Your task to perform on an android device: turn off priority inbox in the gmail app Image 0: 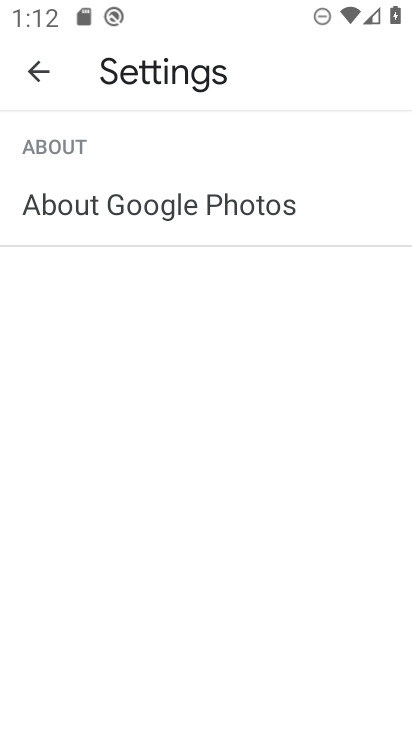
Step 0: press home button
Your task to perform on an android device: turn off priority inbox in the gmail app Image 1: 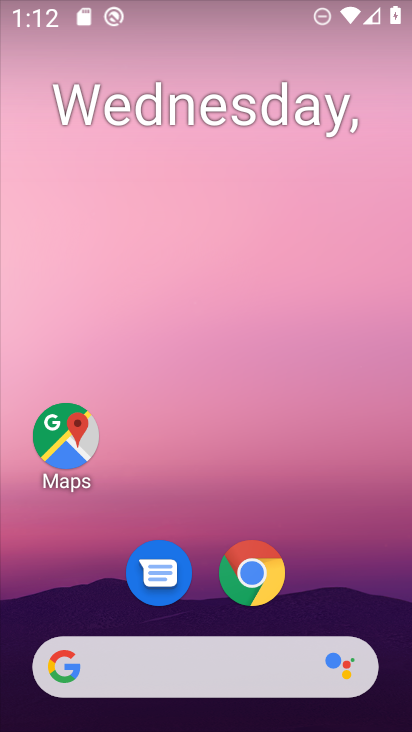
Step 1: drag from (192, 539) to (225, 3)
Your task to perform on an android device: turn off priority inbox in the gmail app Image 2: 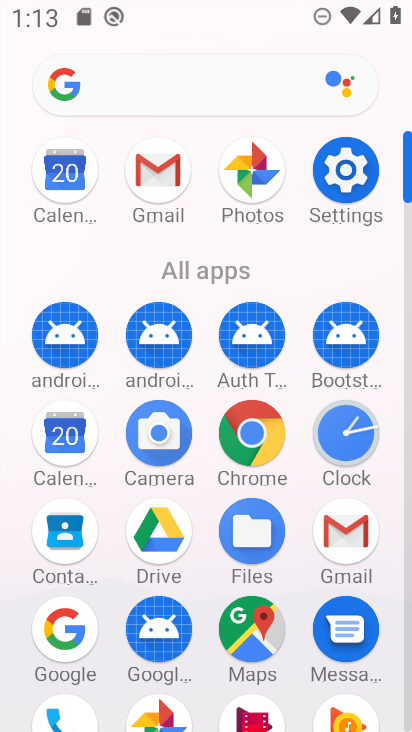
Step 2: click (341, 528)
Your task to perform on an android device: turn off priority inbox in the gmail app Image 3: 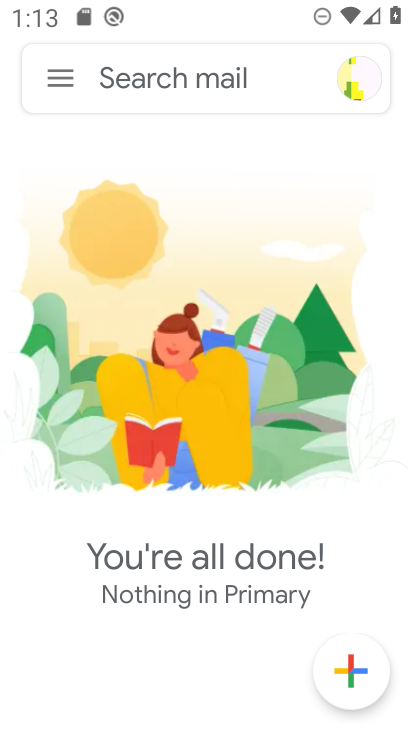
Step 3: click (56, 75)
Your task to perform on an android device: turn off priority inbox in the gmail app Image 4: 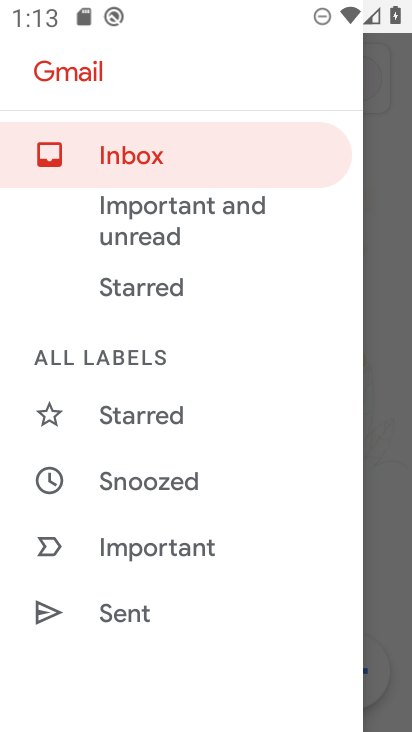
Step 4: drag from (163, 628) to (277, 220)
Your task to perform on an android device: turn off priority inbox in the gmail app Image 5: 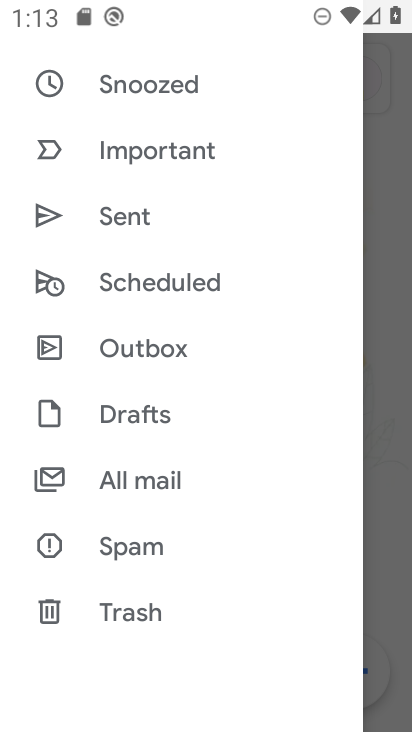
Step 5: drag from (150, 490) to (234, 84)
Your task to perform on an android device: turn off priority inbox in the gmail app Image 6: 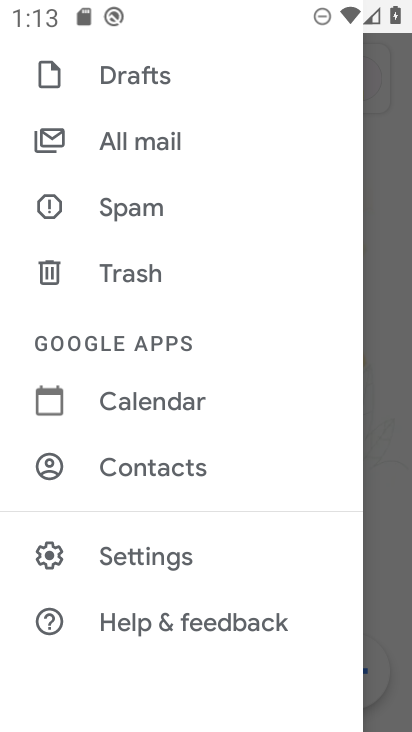
Step 6: click (157, 555)
Your task to perform on an android device: turn off priority inbox in the gmail app Image 7: 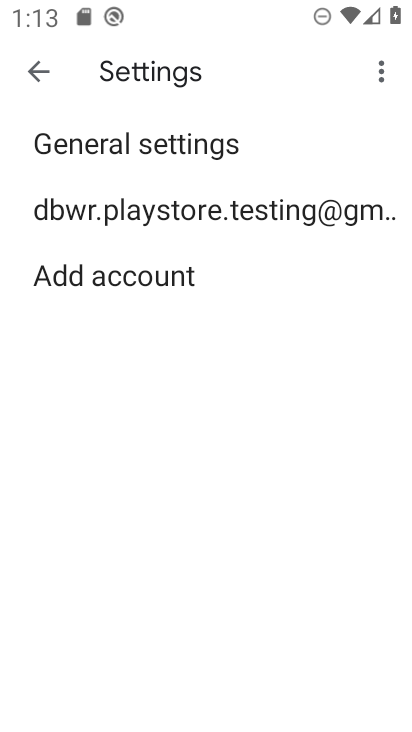
Step 7: click (136, 224)
Your task to perform on an android device: turn off priority inbox in the gmail app Image 8: 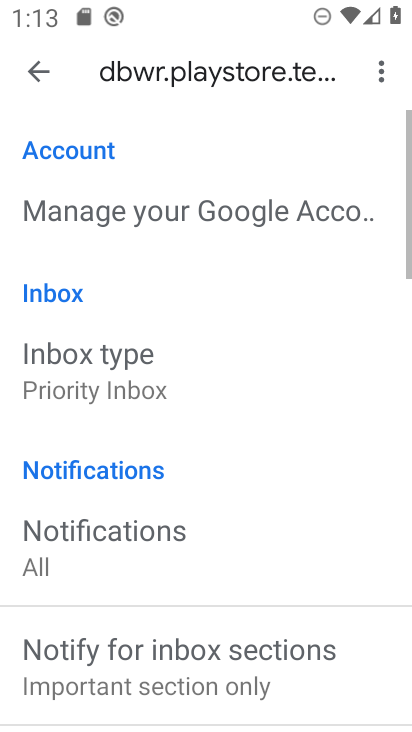
Step 8: click (99, 364)
Your task to perform on an android device: turn off priority inbox in the gmail app Image 9: 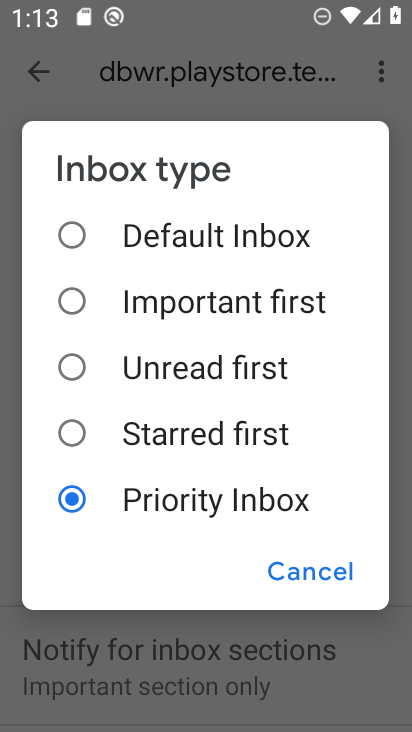
Step 9: click (87, 228)
Your task to perform on an android device: turn off priority inbox in the gmail app Image 10: 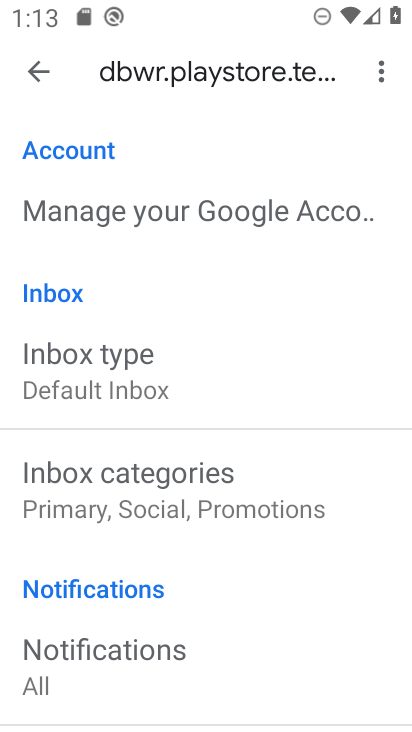
Step 10: task complete